Your task to perform on an android device: turn off improve location accuracy Image 0: 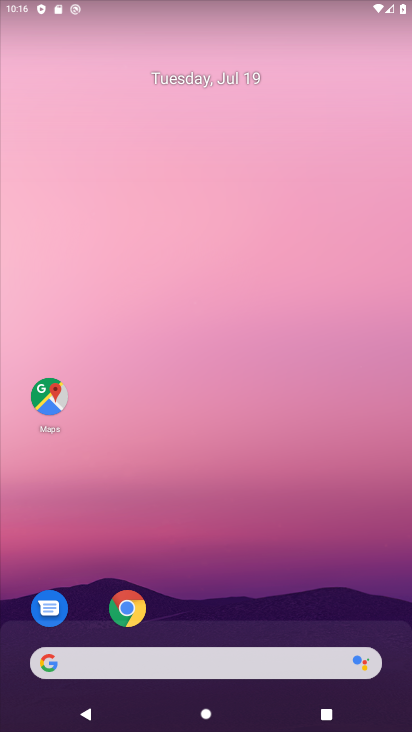
Step 0: drag from (200, 651) to (181, 13)
Your task to perform on an android device: turn off improve location accuracy Image 1: 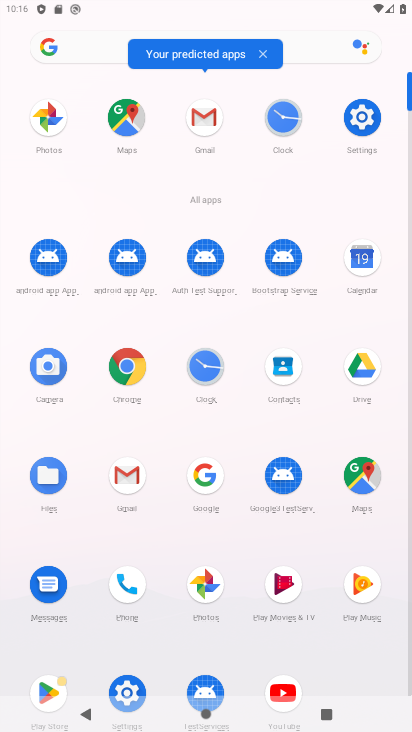
Step 1: click (347, 122)
Your task to perform on an android device: turn off improve location accuracy Image 2: 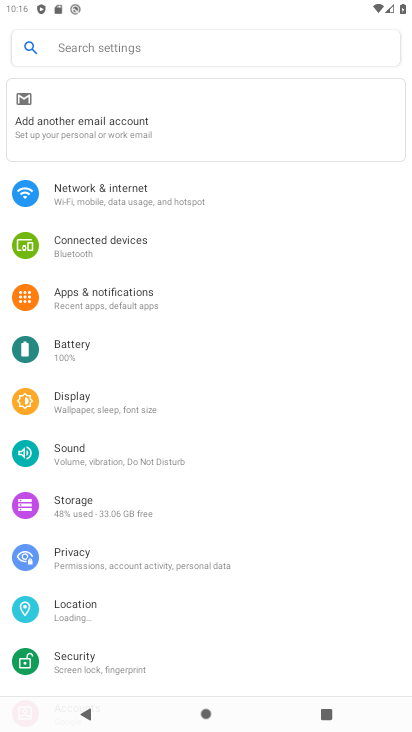
Step 2: click (80, 601)
Your task to perform on an android device: turn off improve location accuracy Image 3: 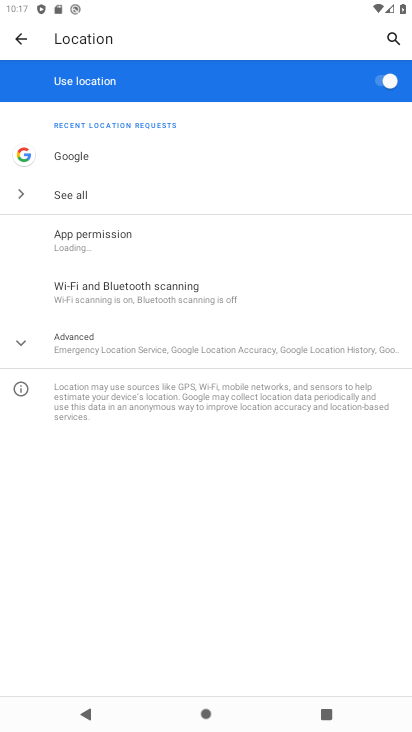
Step 3: click (60, 343)
Your task to perform on an android device: turn off improve location accuracy Image 4: 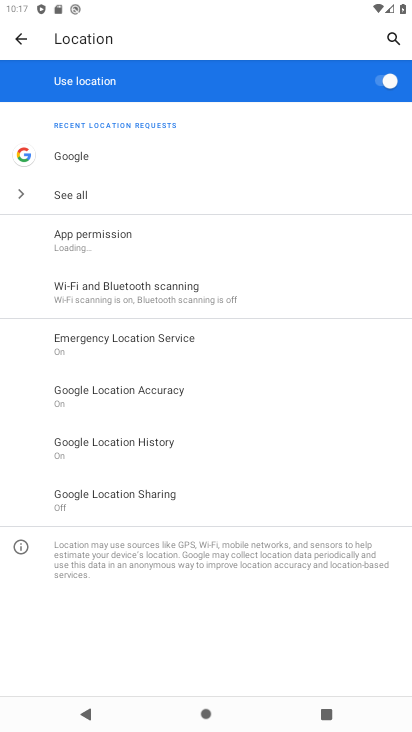
Step 4: click (79, 377)
Your task to perform on an android device: turn off improve location accuracy Image 5: 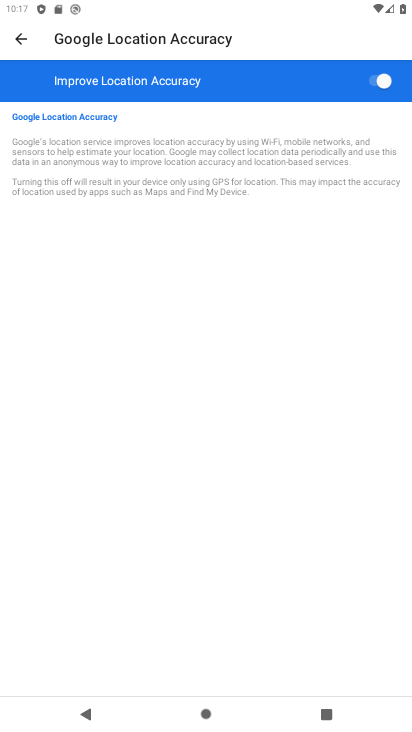
Step 5: click (368, 85)
Your task to perform on an android device: turn off improve location accuracy Image 6: 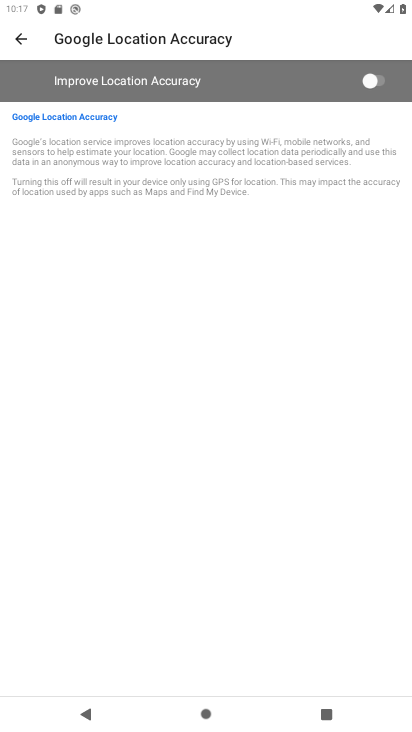
Step 6: task complete